Your task to perform on an android device: Do I have any events today? Image 0: 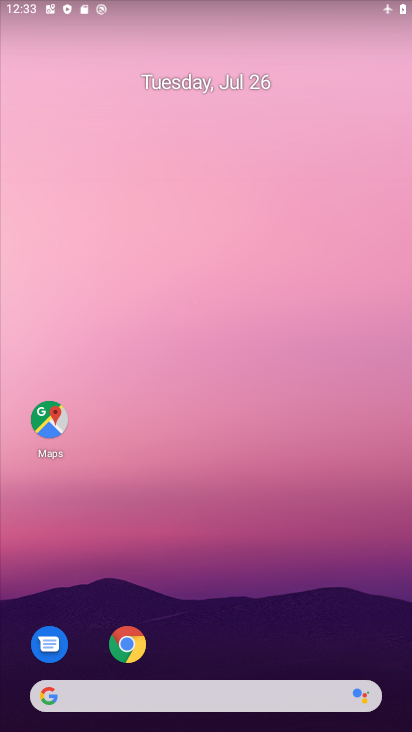
Step 0: drag from (221, 668) to (288, 217)
Your task to perform on an android device: Do I have any events today? Image 1: 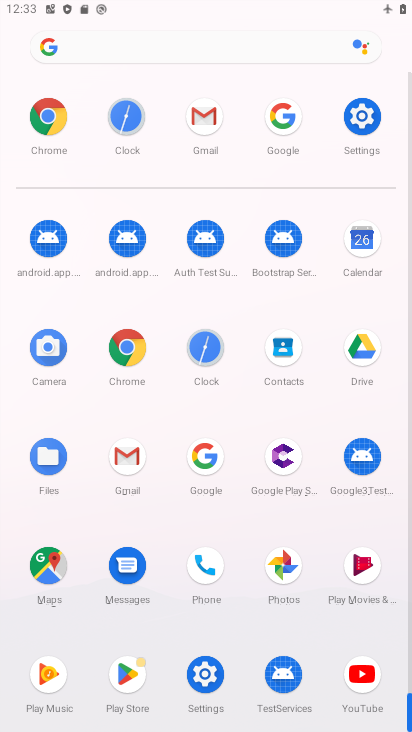
Step 1: drag from (222, 477) to (250, 258)
Your task to perform on an android device: Do I have any events today? Image 2: 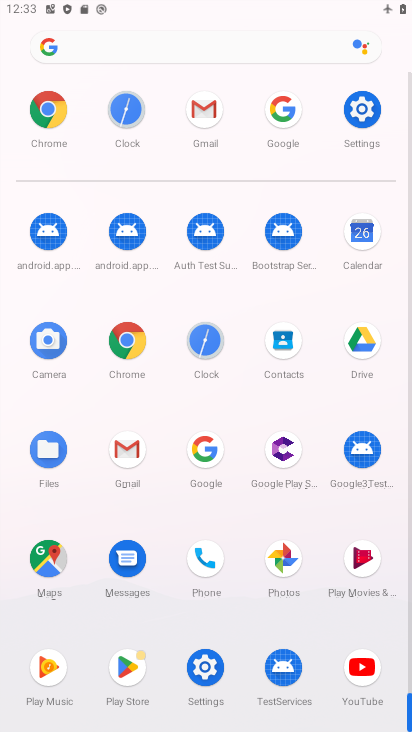
Step 2: click (345, 259)
Your task to perform on an android device: Do I have any events today? Image 3: 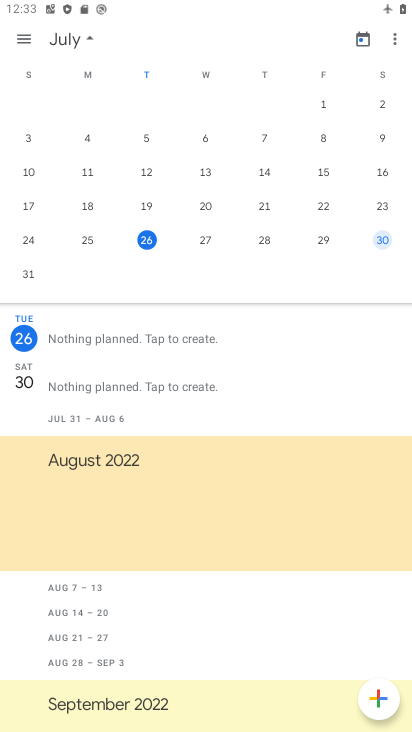
Step 3: click (148, 243)
Your task to perform on an android device: Do I have any events today? Image 4: 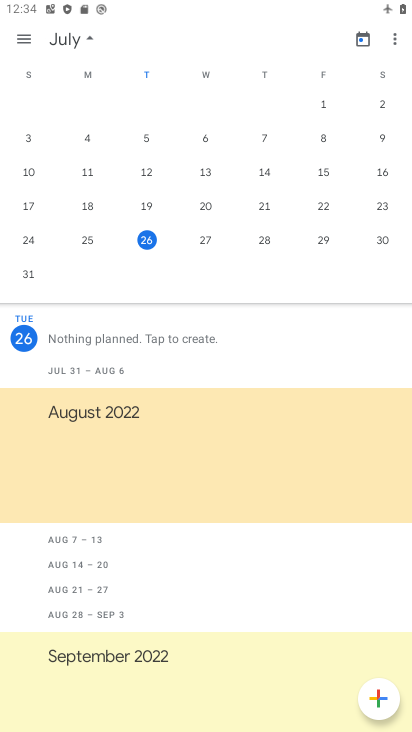
Step 4: task complete